Your task to perform on an android device: open chrome privacy settings Image 0: 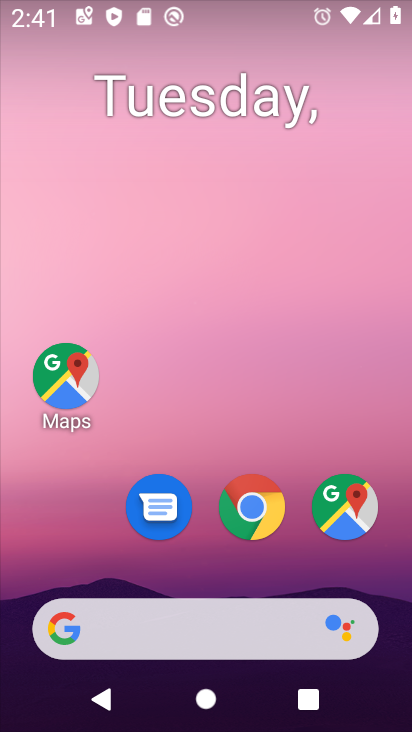
Step 0: drag from (281, 546) to (280, 221)
Your task to perform on an android device: open chrome privacy settings Image 1: 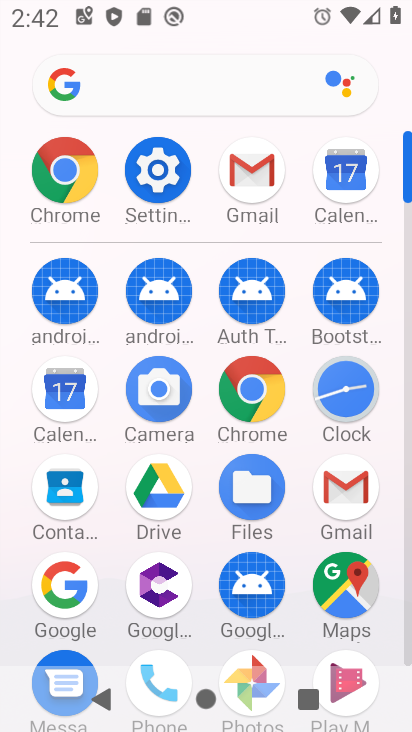
Step 1: click (146, 165)
Your task to perform on an android device: open chrome privacy settings Image 2: 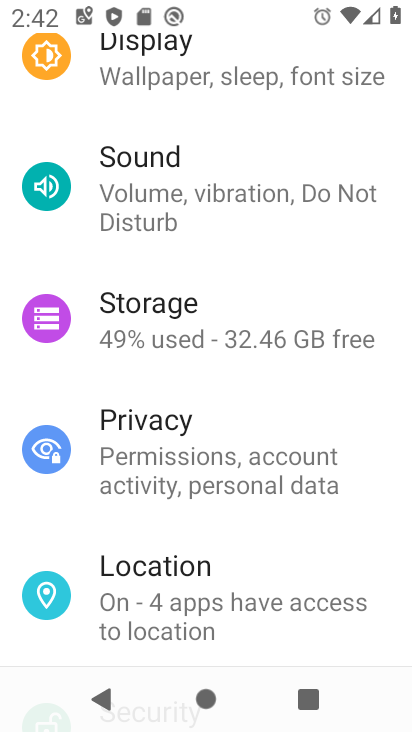
Step 2: click (188, 429)
Your task to perform on an android device: open chrome privacy settings Image 3: 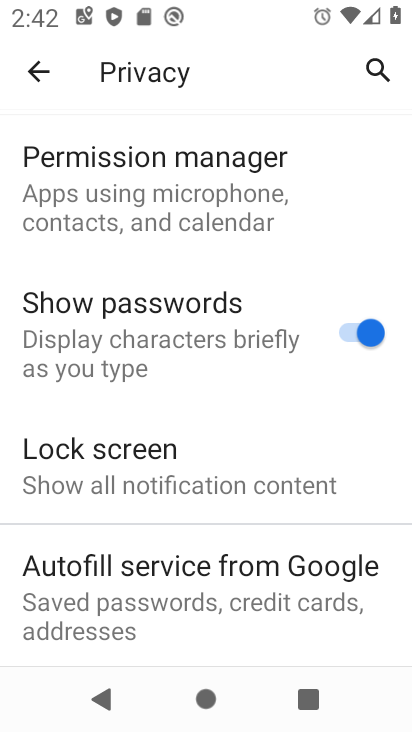
Step 3: task complete